Your task to perform on an android device: Search for pizza restaurants on Maps Image 0: 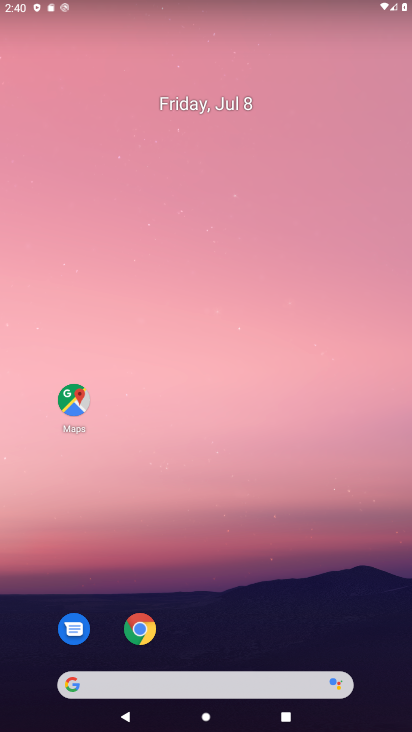
Step 0: drag from (17, 707) to (199, 58)
Your task to perform on an android device: Search for pizza restaurants on Maps Image 1: 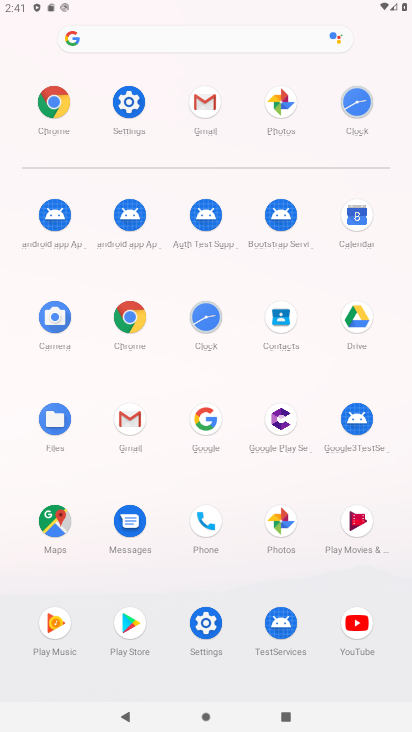
Step 1: click (63, 527)
Your task to perform on an android device: Search for pizza restaurants on Maps Image 2: 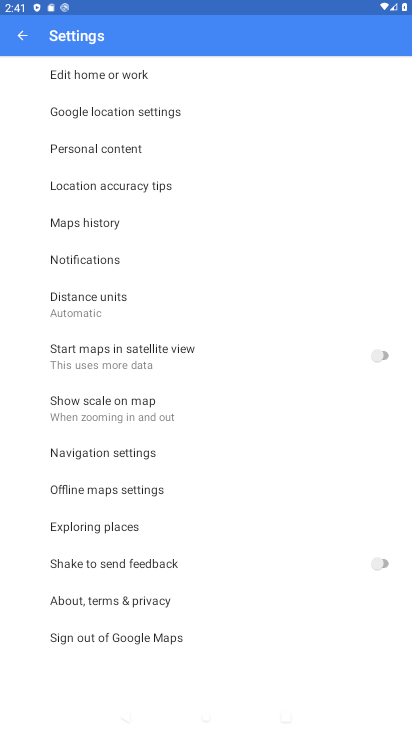
Step 2: press home button
Your task to perform on an android device: Search for pizza restaurants on Maps Image 3: 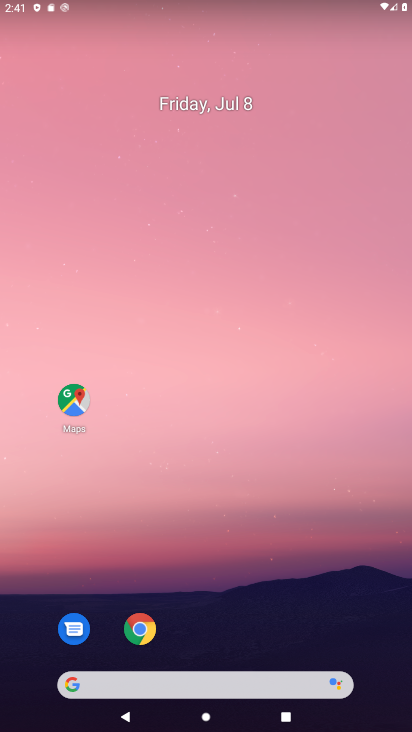
Step 3: click (174, 690)
Your task to perform on an android device: Search for pizza restaurants on Maps Image 4: 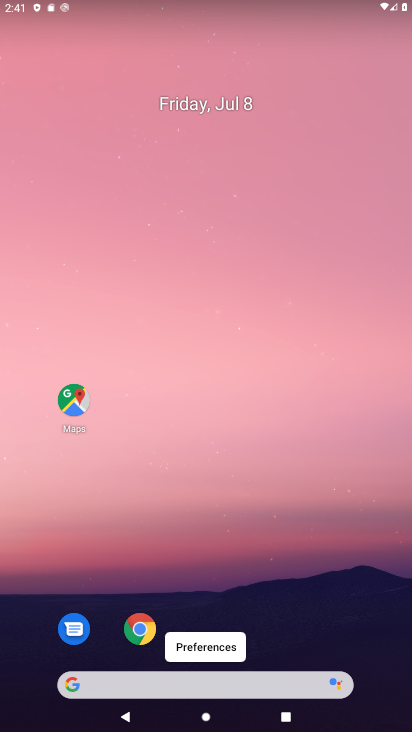
Step 4: click (129, 686)
Your task to perform on an android device: Search for pizza restaurants on Maps Image 5: 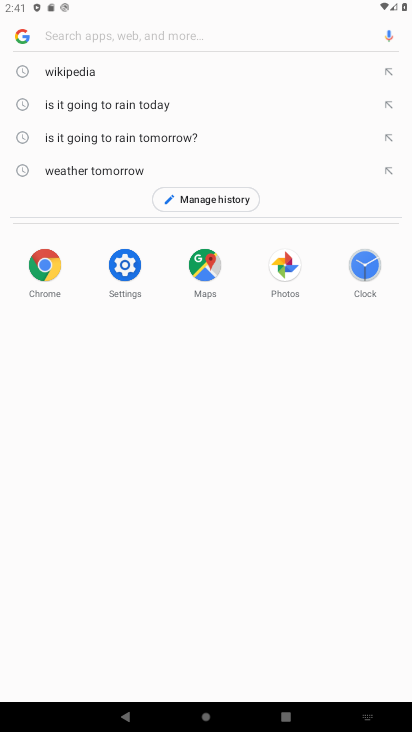
Step 5: type "pizza restaurants"
Your task to perform on an android device: Search for pizza restaurants on Maps Image 6: 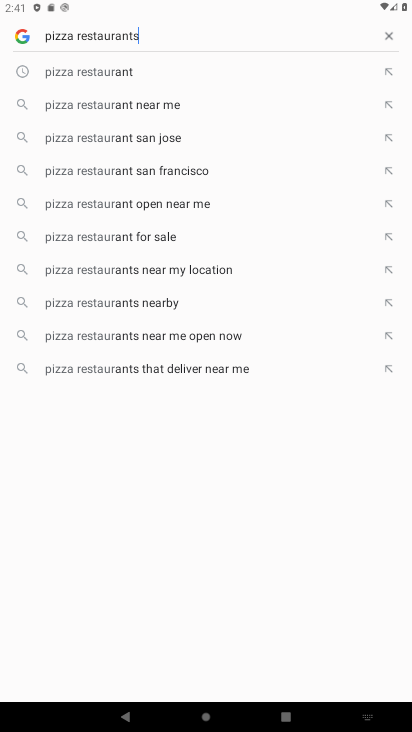
Step 6: type ""
Your task to perform on an android device: Search for pizza restaurants on Maps Image 7: 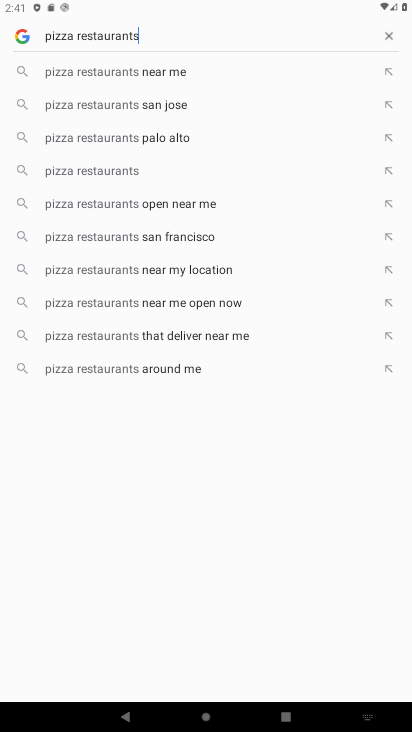
Step 7: type ""
Your task to perform on an android device: Search for pizza restaurants on Maps Image 8: 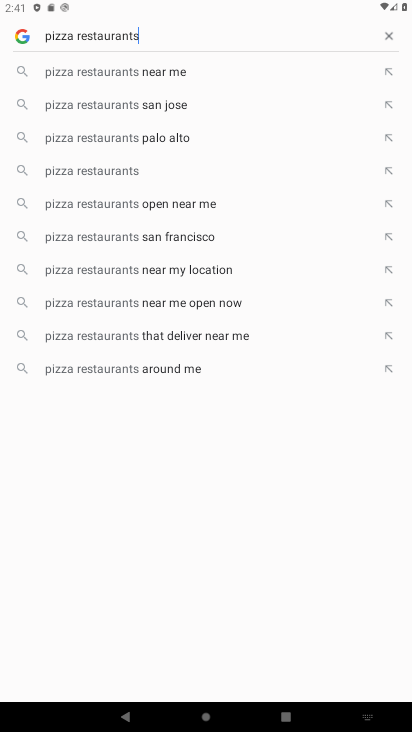
Step 8: type ""
Your task to perform on an android device: Search for pizza restaurants on Maps Image 9: 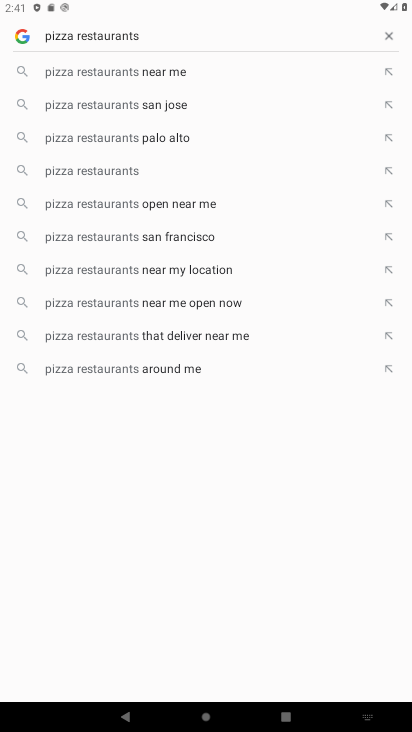
Step 9: type ""
Your task to perform on an android device: Search for pizza restaurants on Maps Image 10: 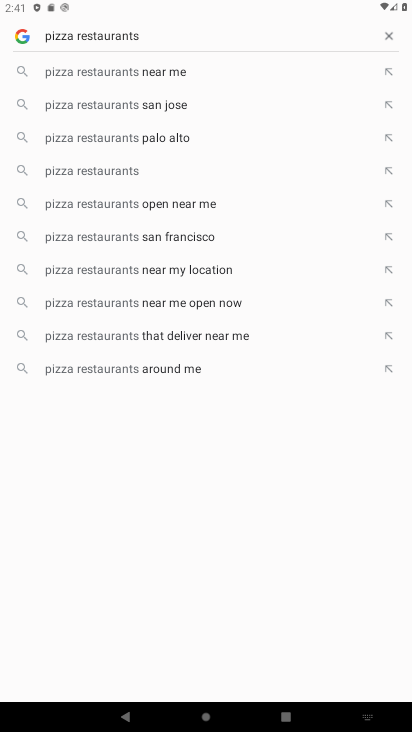
Step 10: task complete